Your task to perform on an android device: How much does the HisenseTV cost? Image 0: 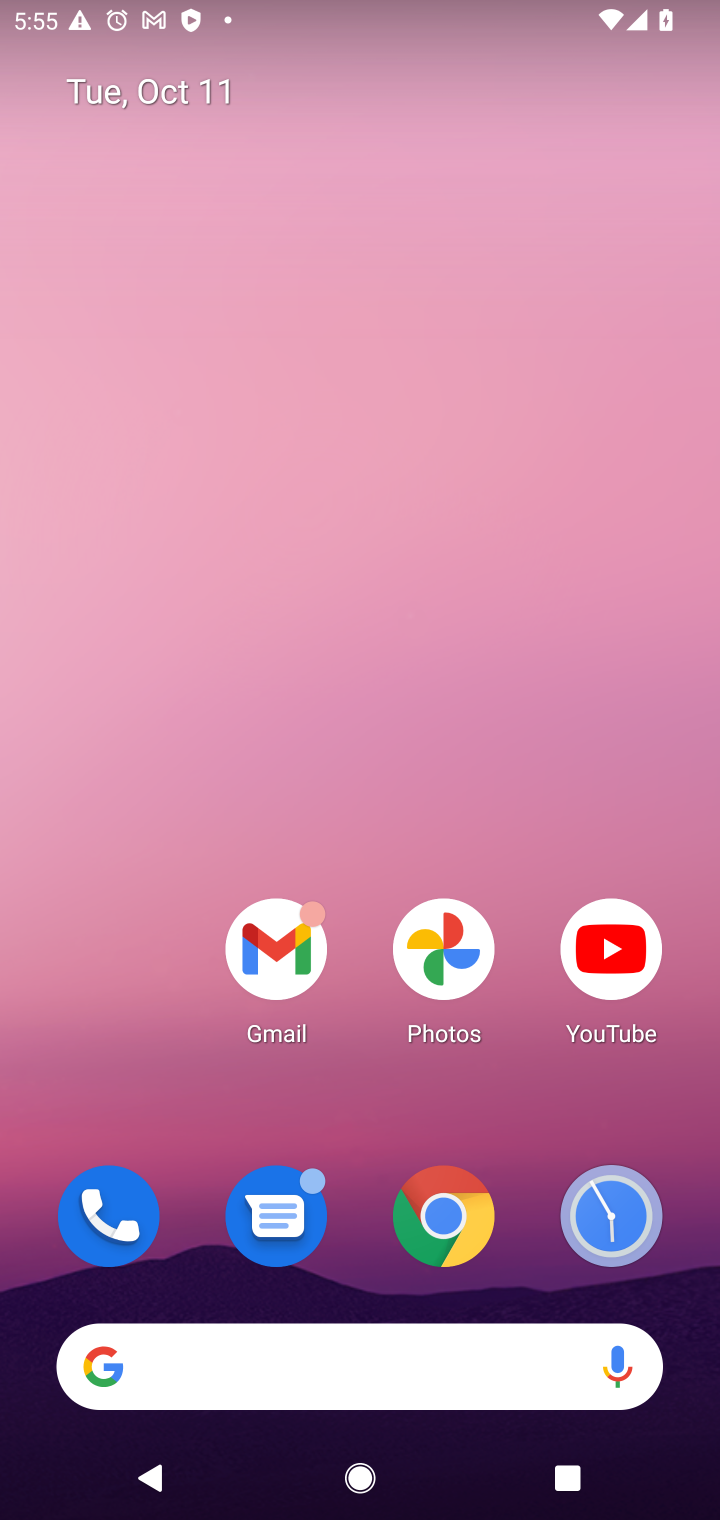
Step 0: click (457, 1239)
Your task to perform on an android device: How much does the HisenseTV cost? Image 1: 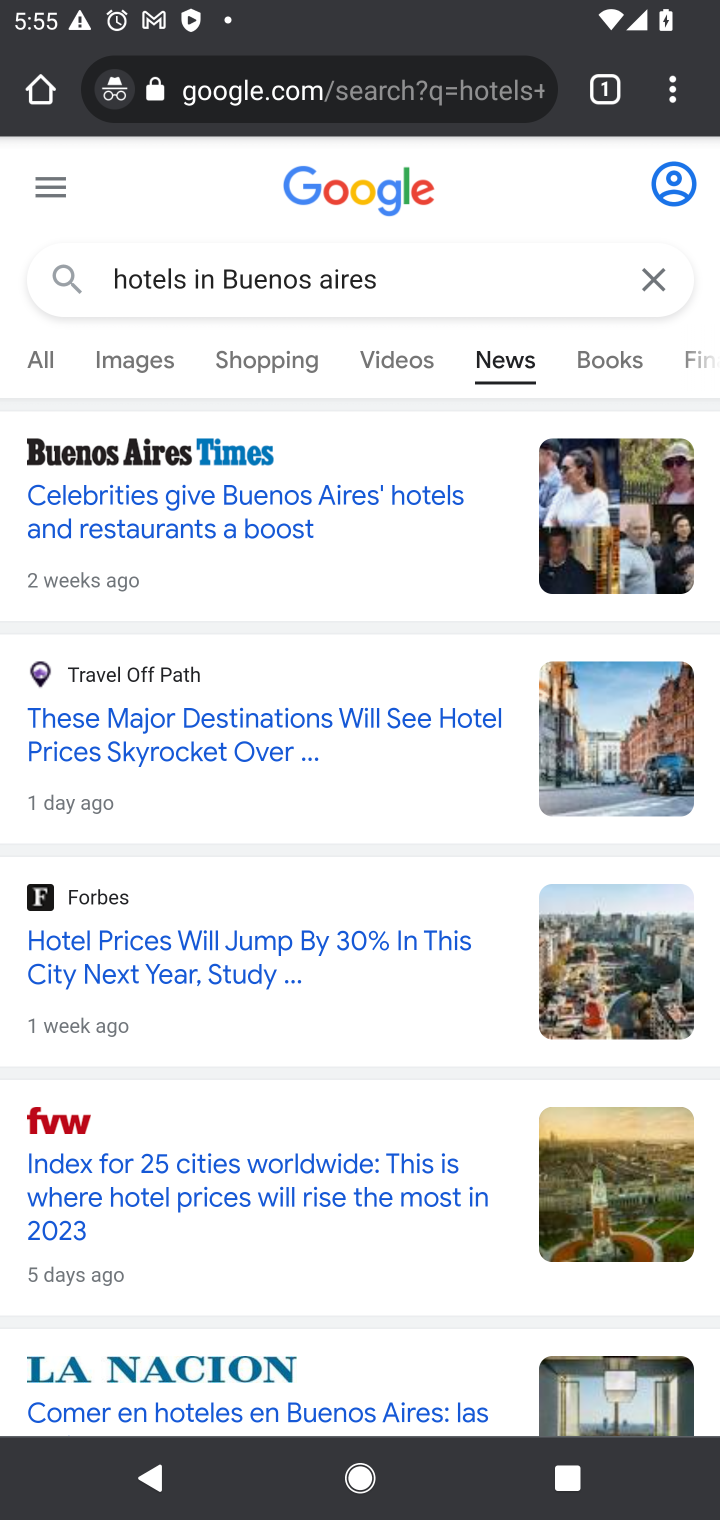
Step 1: click (30, 366)
Your task to perform on an android device: How much does the HisenseTV cost? Image 2: 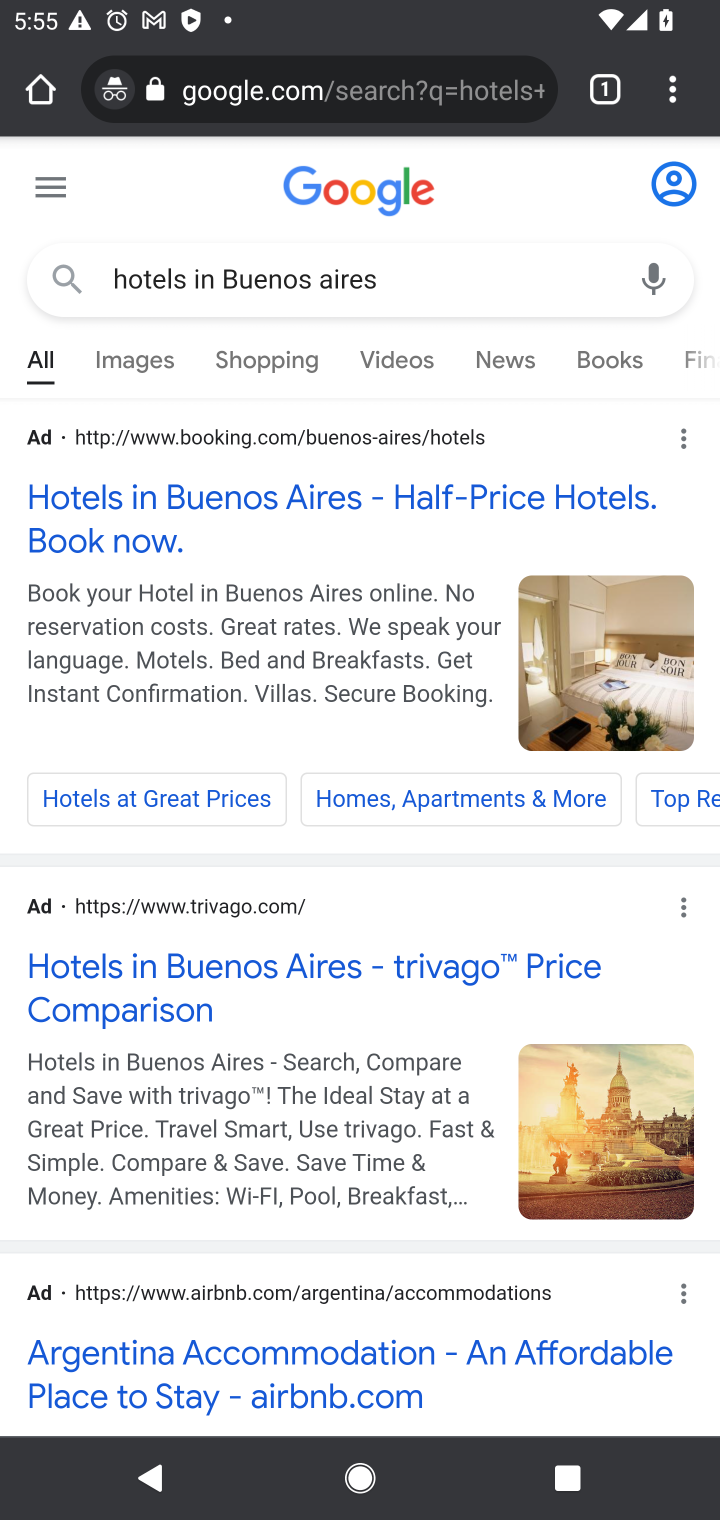
Step 2: click (412, 262)
Your task to perform on an android device: How much does the HisenseTV cost? Image 3: 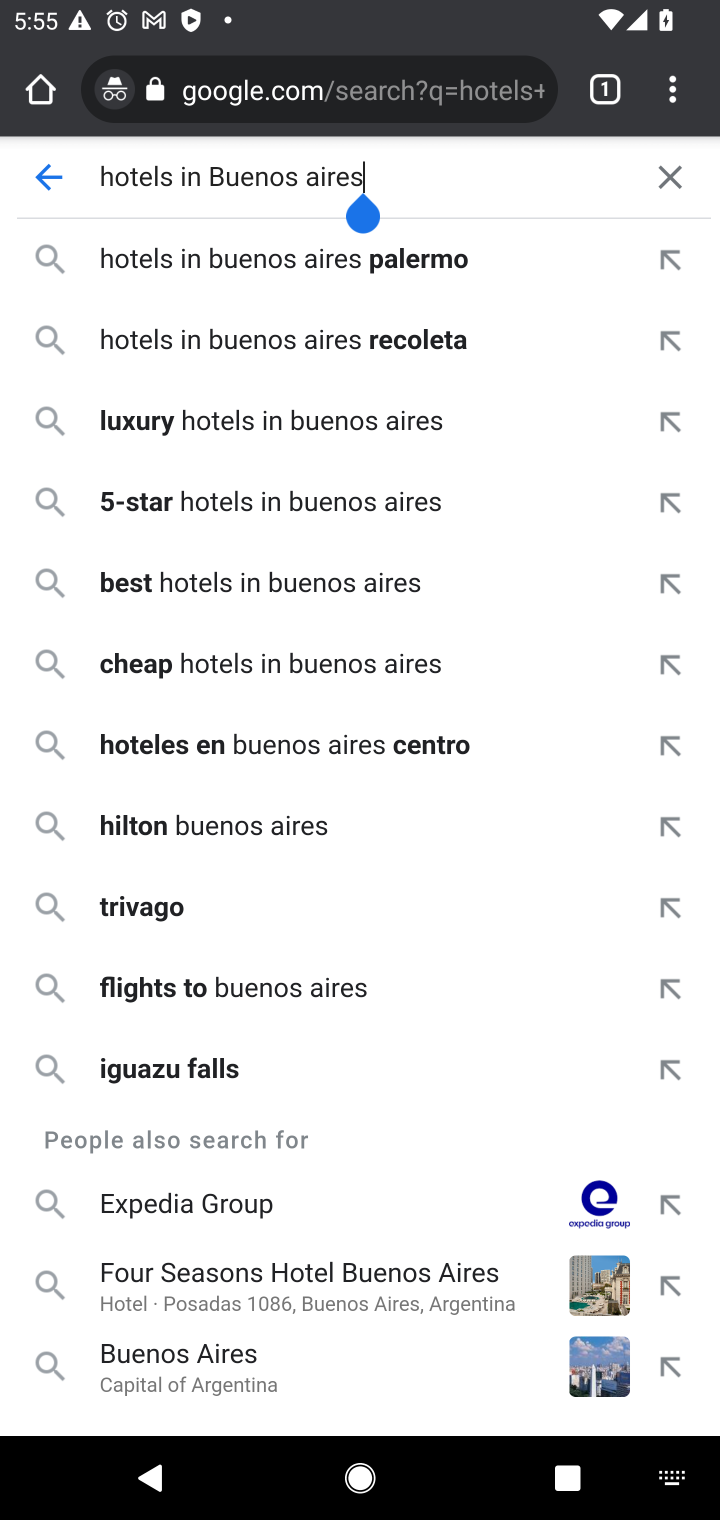
Step 3: click (662, 180)
Your task to perform on an android device: How much does the HisenseTV cost? Image 4: 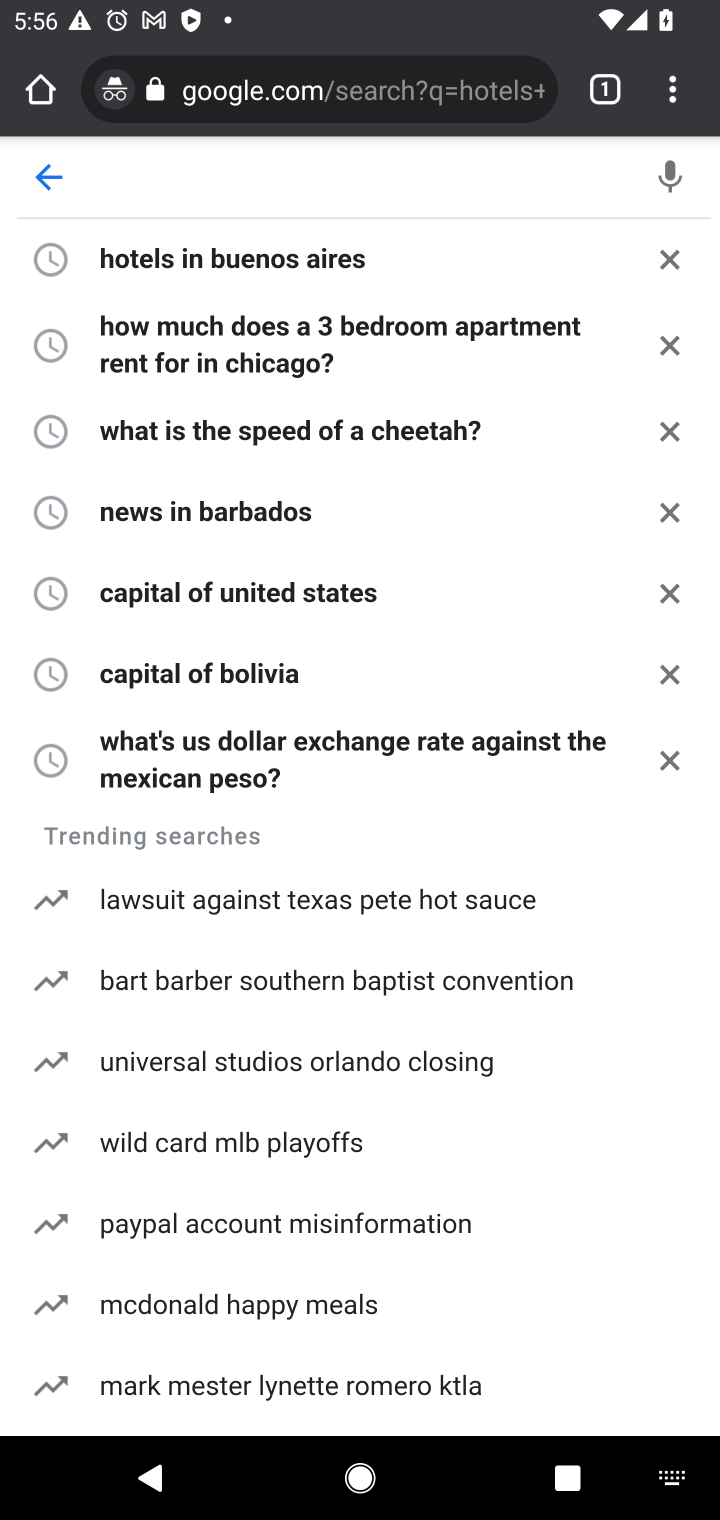
Step 4: type "How much does the HisenseTV cost?"
Your task to perform on an android device: How much does the HisenseTV cost? Image 5: 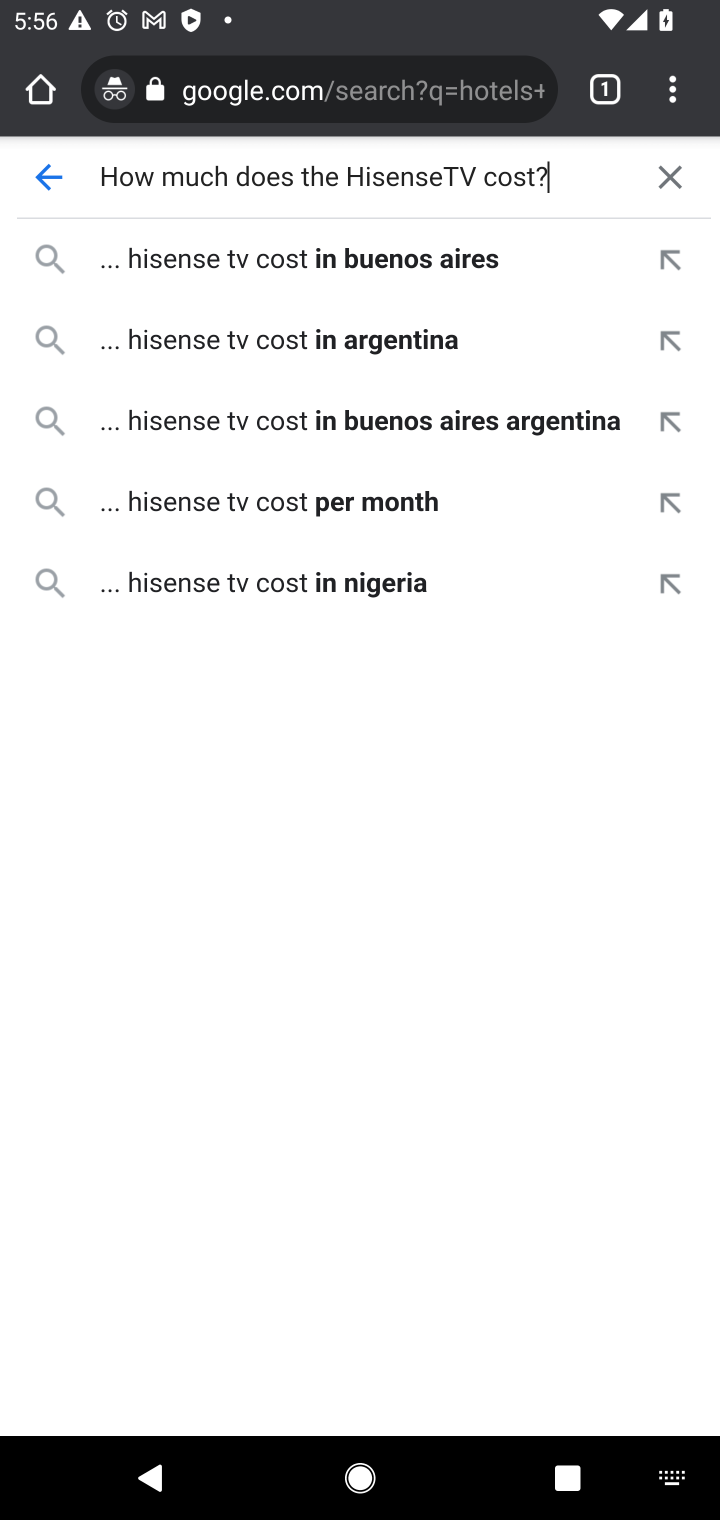
Step 5: press enter
Your task to perform on an android device: How much does the HisenseTV cost? Image 6: 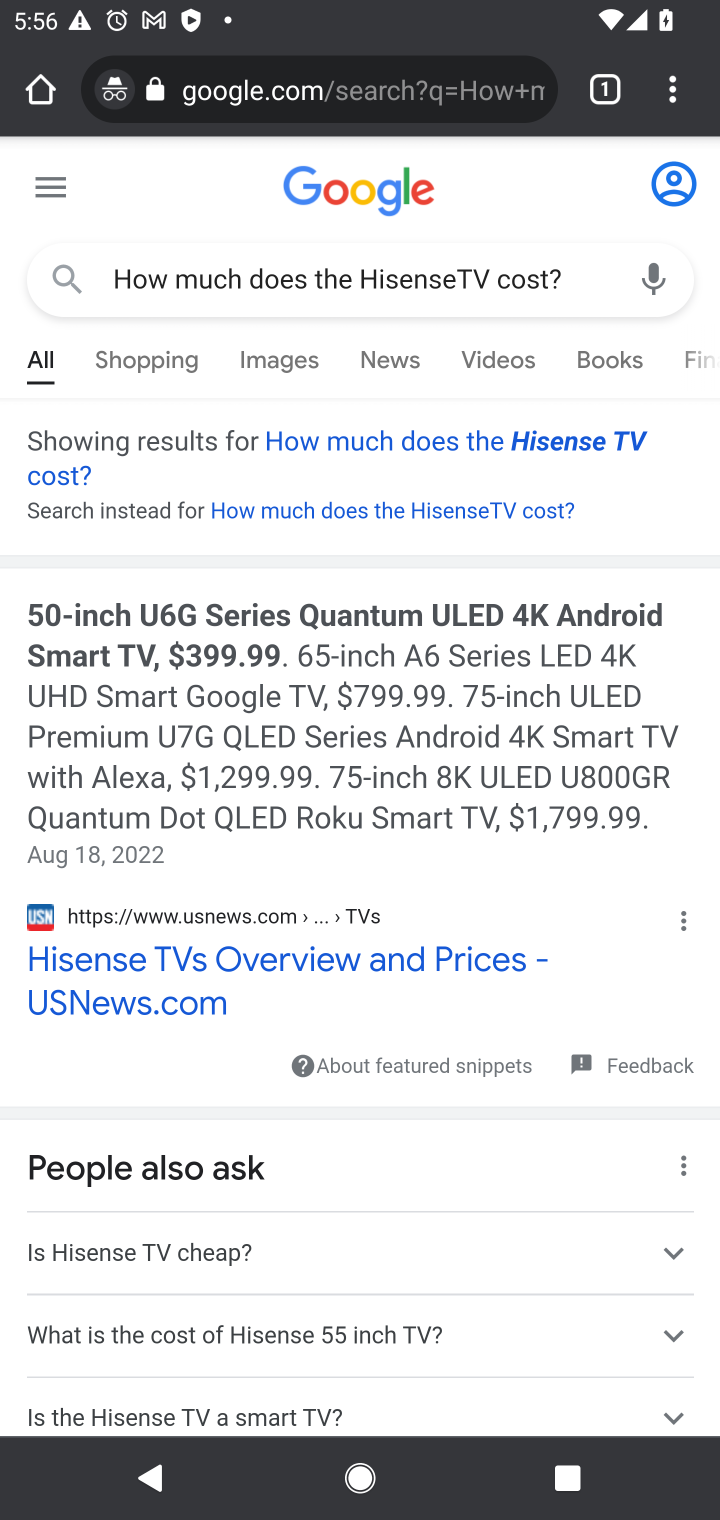
Step 6: task complete